Your task to perform on an android device: check out phone information Image 0: 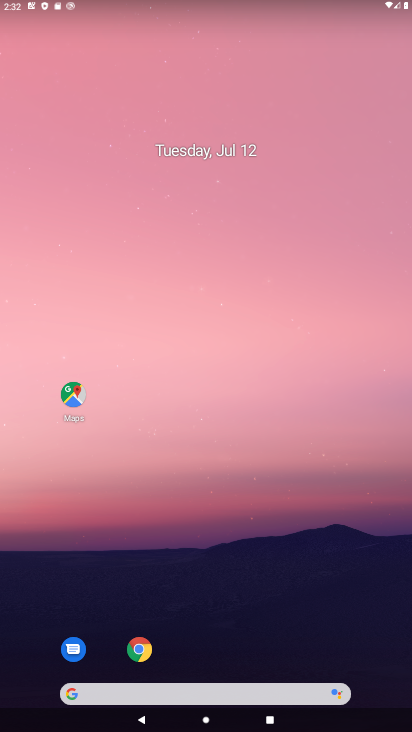
Step 0: drag from (293, 637) to (230, 178)
Your task to perform on an android device: check out phone information Image 1: 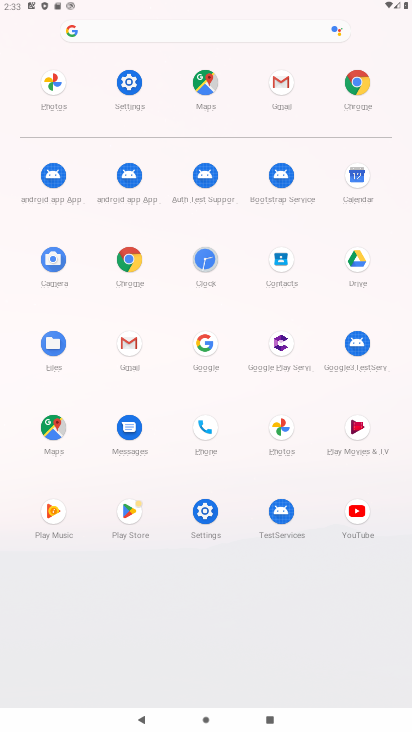
Step 1: click (129, 100)
Your task to perform on an android device: check out phone information Image 2: 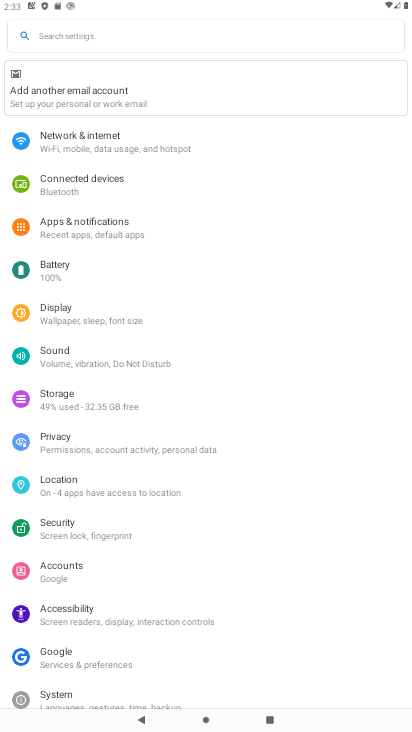
Step 2: click (111, 692)
Your task to perform on an android device: check out phone information Image 3: 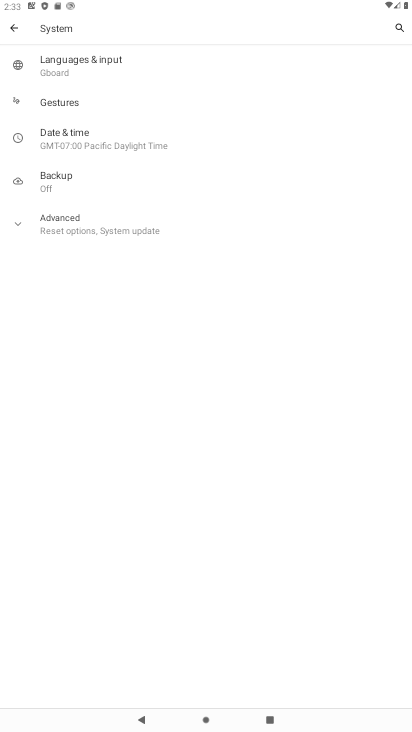
Step 3: task complete